Your task to perform on an android device: turn on airplane mode Image 0: 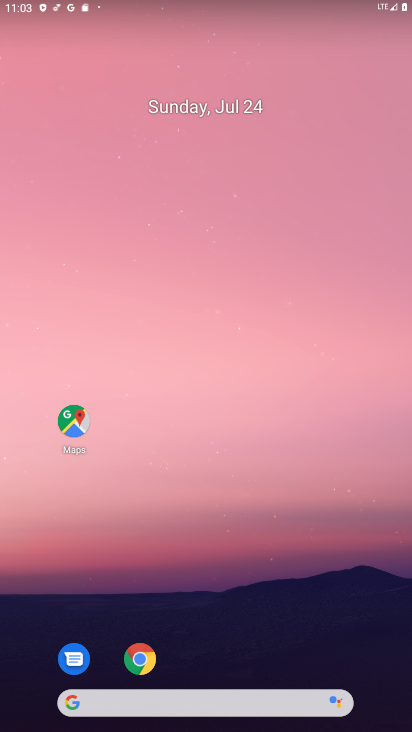
Step 0: drag from (244, 663) to (240, 142)
Your task to perform on an android device: turn on airplane mode Image 1: 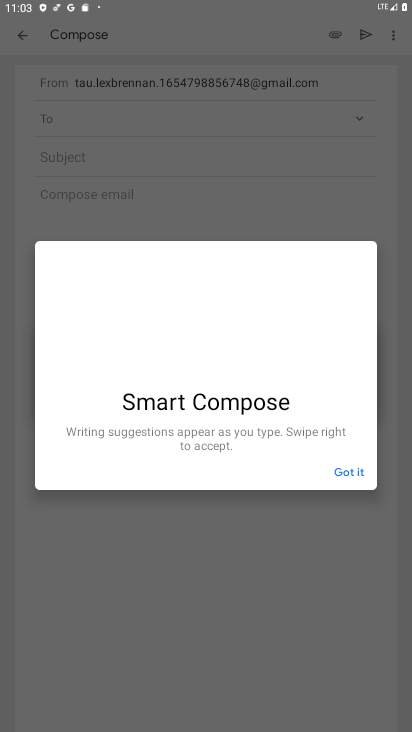
Step 1: press home button
Your task to perform on an android device: turn on airplane mode Image 2: 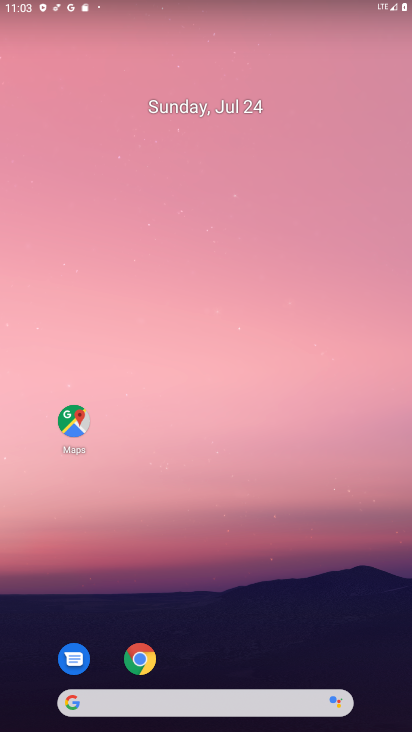
Step 2: drag from (351, 663) to (284, 41)
Your task to perform on an android device: turn on airplane mode Image 3: 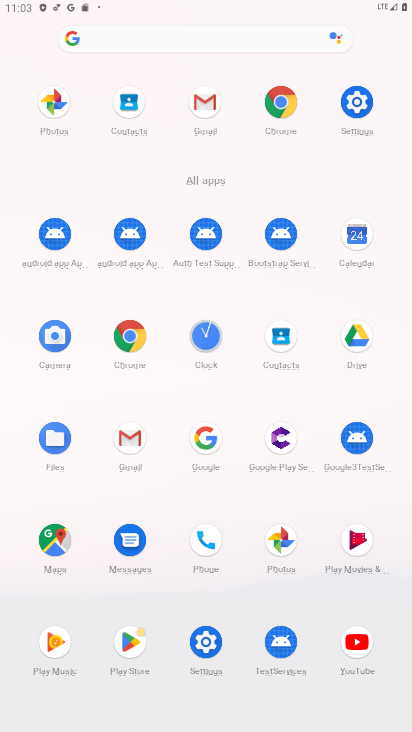
Step 3: click (354, 102)
Your task to perform on an android device: turn on airplane mode Image 4: 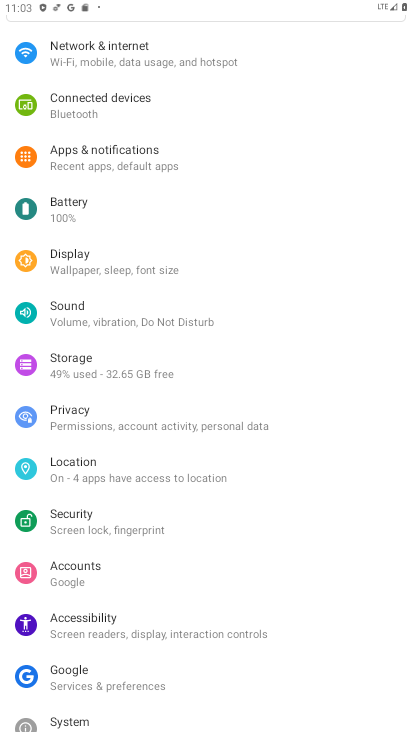
Step 4: click (172, 60)
Your task to perform on an android device: turn on airplane mode Image 5: 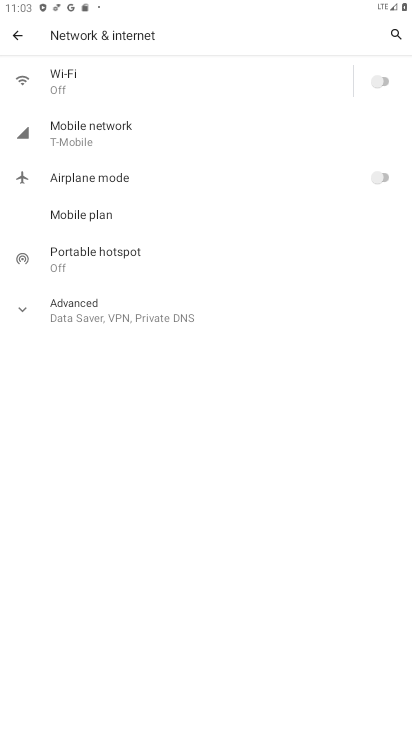
Step 5: click (379, 183)
Your task to perform on an android device: turn on airplane mode Image 6: 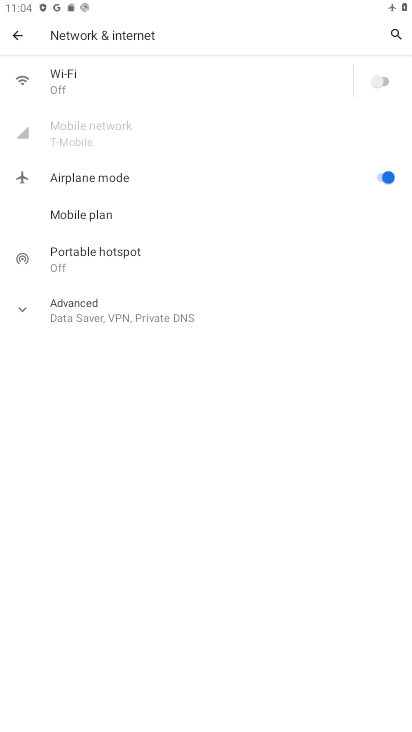
Step 6: task complete